Your task to perform on an android device: check out phone information Image 0: 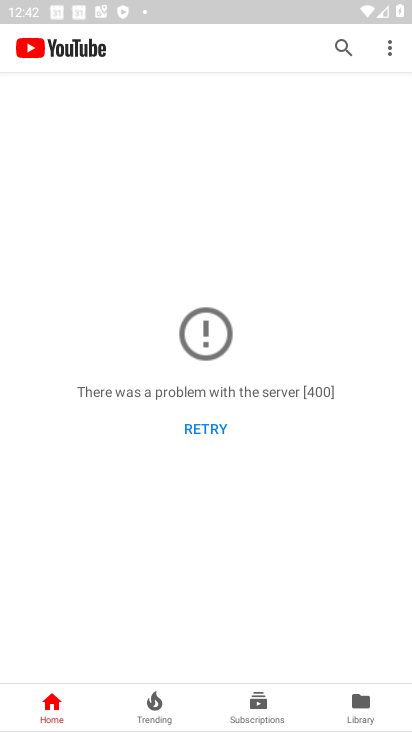
Step 0: press home button
Your task to perform on an android device: check out phone information Image 1: 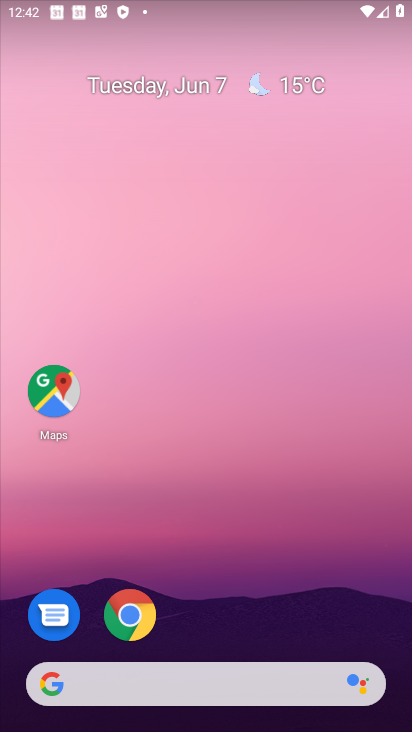
Step 1: drag from (220, 651) to (172, 322)
Your task to perform on an android device: check out phone information Image 2: 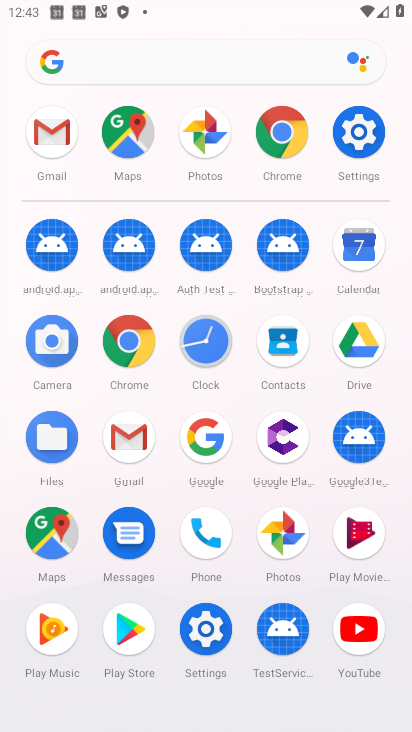
Step 2: click (372, 136)
Your task to perform on an android device: check out phone information Image 3: 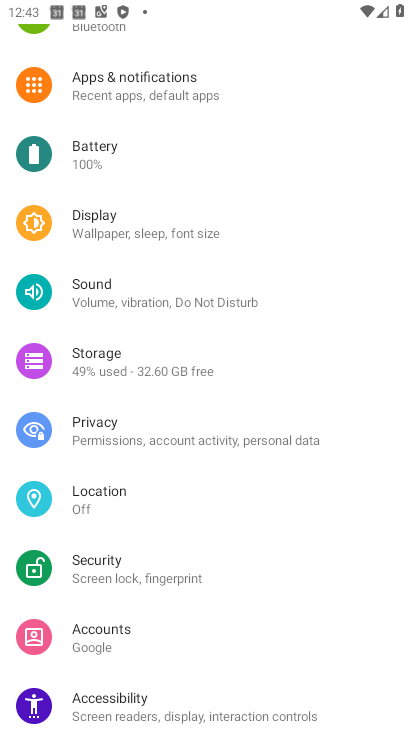
Step 3: drag from (229, 620) to (169, 8)
Your task to perform on an android device: check out phone information Image 4: 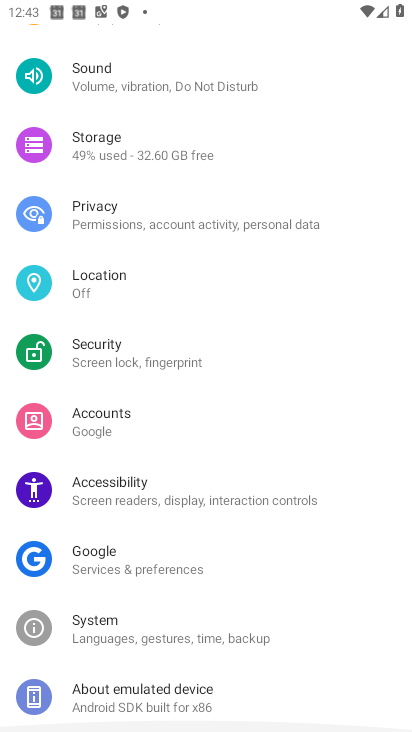
Step 4: drag from (108, 463) to (106, 250)
Your task to perform on an android device: check out phone information Image 5: 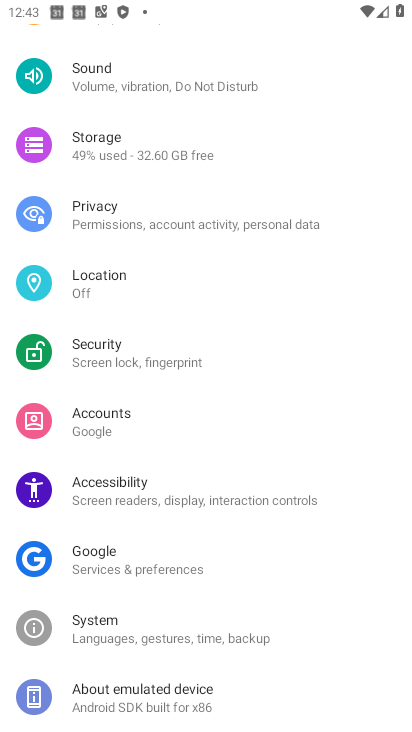
Step 5: click (118, 684)
Your task to perform on an android device: check out phone information Image 6: 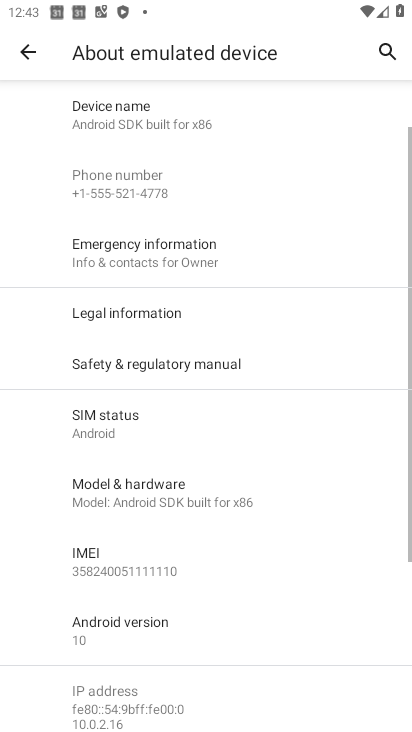
Step 6: task complete